Your task to perform on an android device: Show me recent news Image 0: 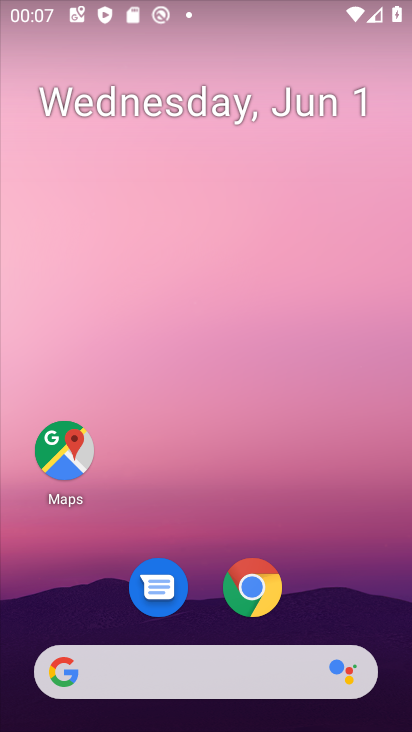
Step 0: click (211, 666)
Your task to perform on an android device: Show me recent news Image 1: 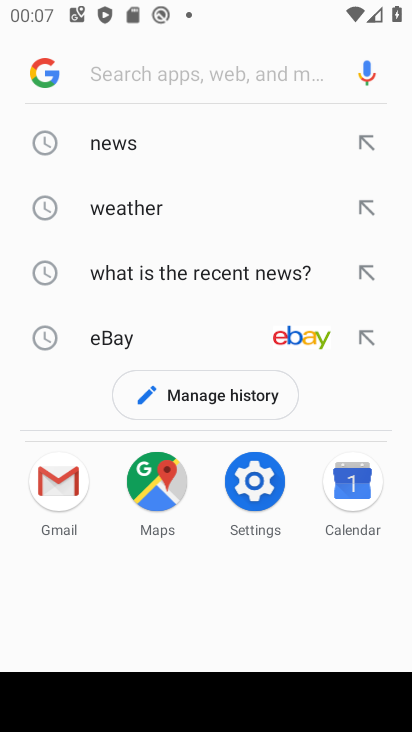
Step 1: type "recent news"
Your task to perform on an android device: Show me recent news Image 2: 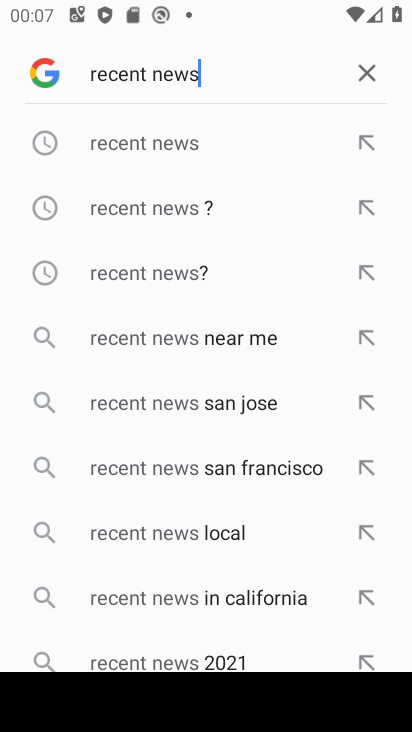
Step 2: click (170, 140)
Your task to perform on an android device: Show me recent news Image 3: 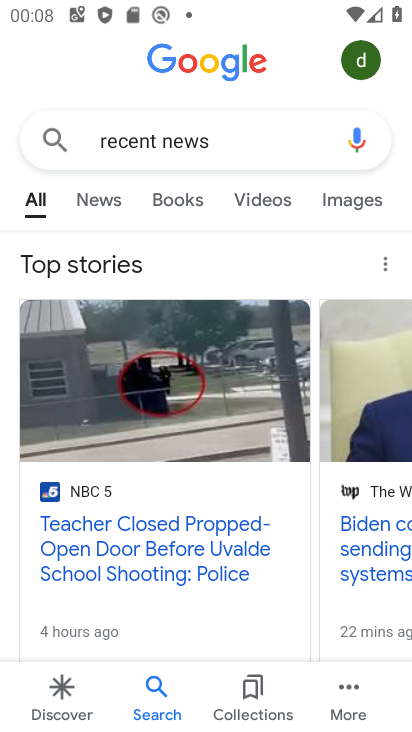
Step 3: click (123, 194)
Your task to perform on an android device: Show me recent news Image 4: 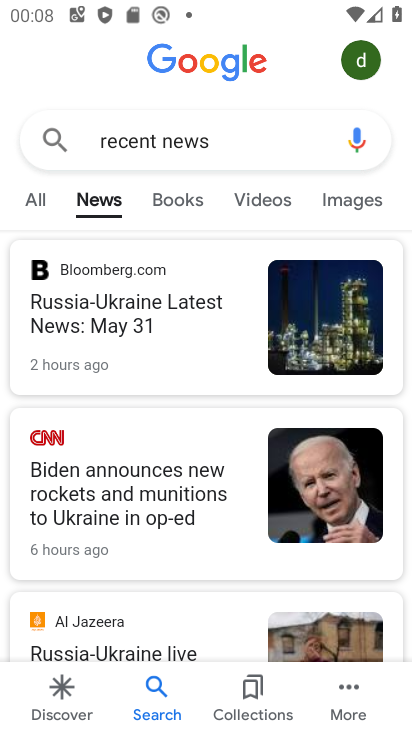
Step 4: task complete